Your task to perform on an android device: find snoozed emails in the gmail app Image 0: 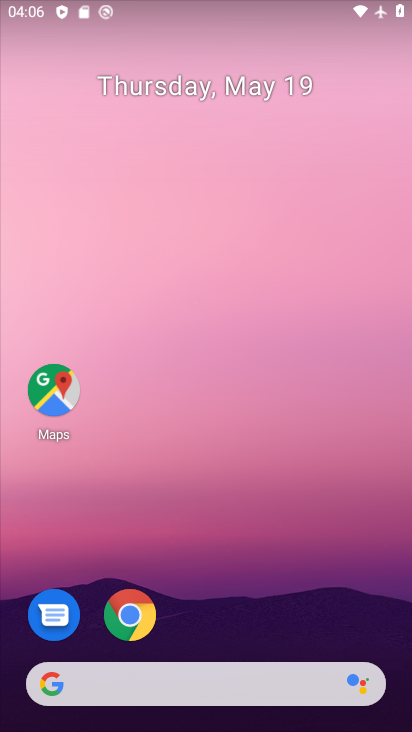
Step 0: drag from (305, 635) to (240, 2)
Your task to perform on an android device: find snoozed emails in the gmail app Image 1: 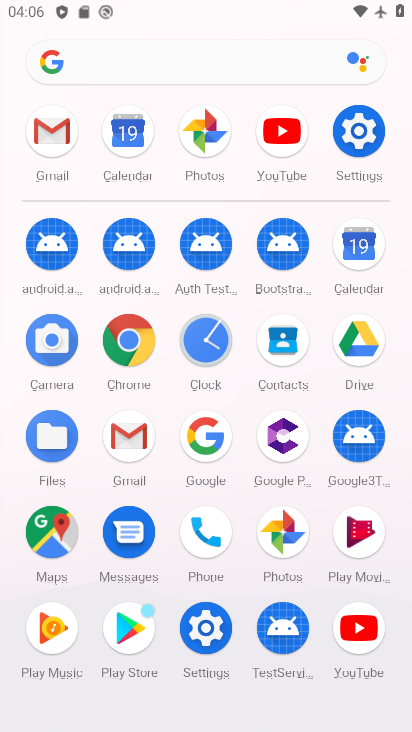
Step 1: click (51, 139)
Your task to perform on an android device: find snoozed emails in the gmail app Image 2: 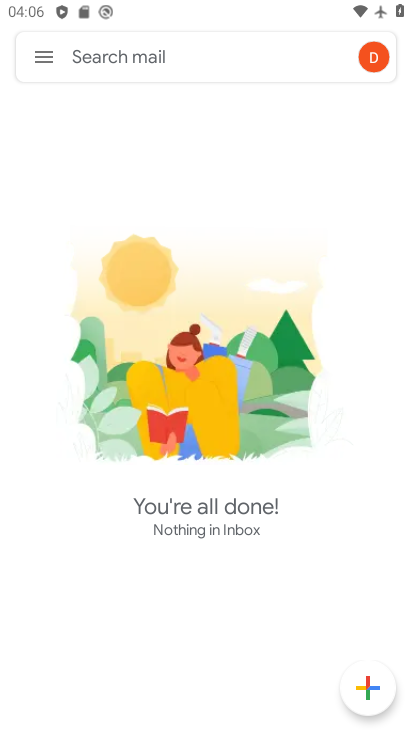
Step 2: click (44, 54)
Your task to perform on an android device: find snoozed emails in the gmail app Image 3: 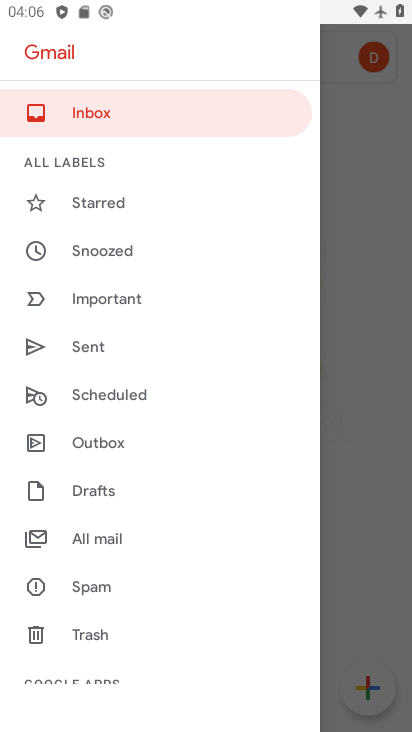
Step 3: click (104, 252)
Your task to perform on an android device: find snoozed emails in the gmail app Image 4: 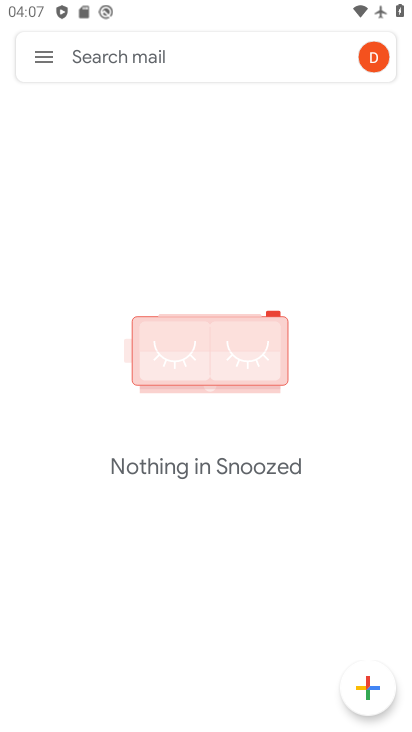
Step 4: task complete